Your task to perform on an android device: Go to settings Image 0: 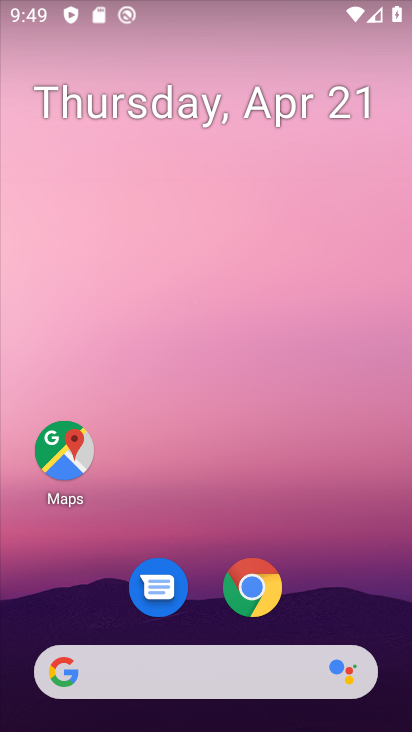
Step 0: drag from (350, 594) to (364, 199)
Your task to perform on an android device: Go to settings Image 1: 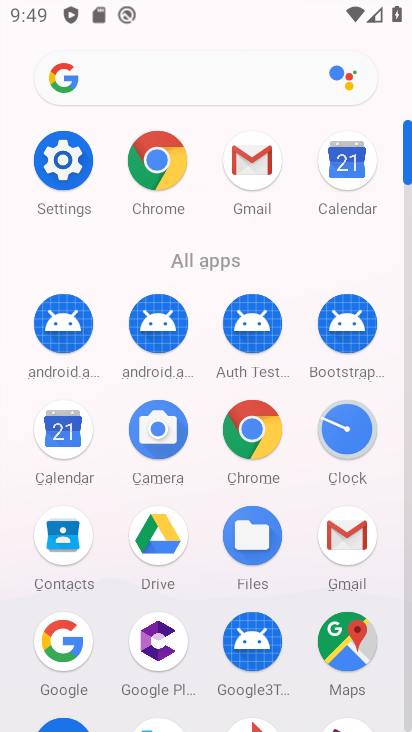
Step 1: click (63, 164)
Your task to perform on an android device: Go to settings Image 2: 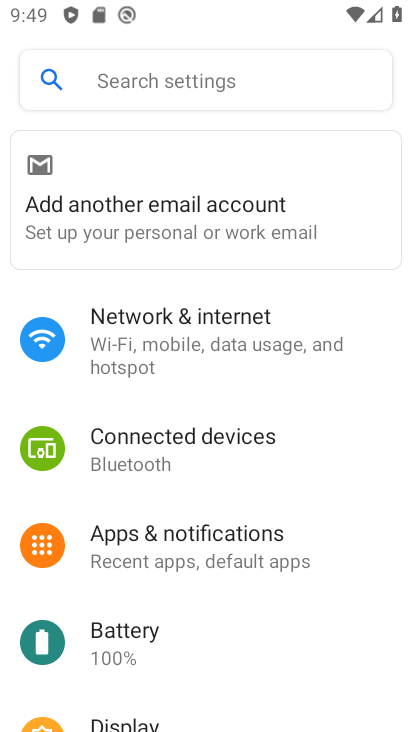
Step 2: task complete